Your task to perform on an android device: open app "Firefox Browser" Image 0: 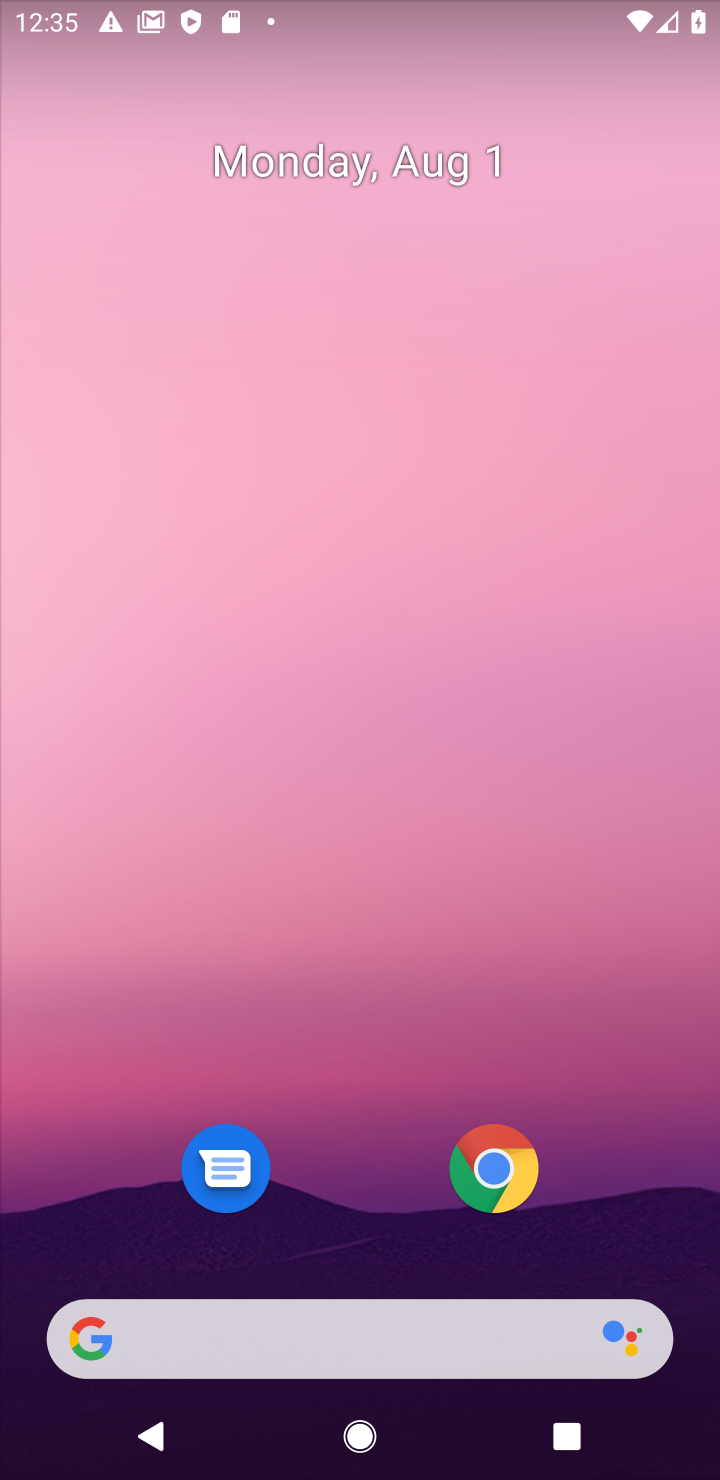
Step 0: drag from (436, 501) to (514, 0)
Your task to perform on an android device: open app "Firefox Browser" Image 1: 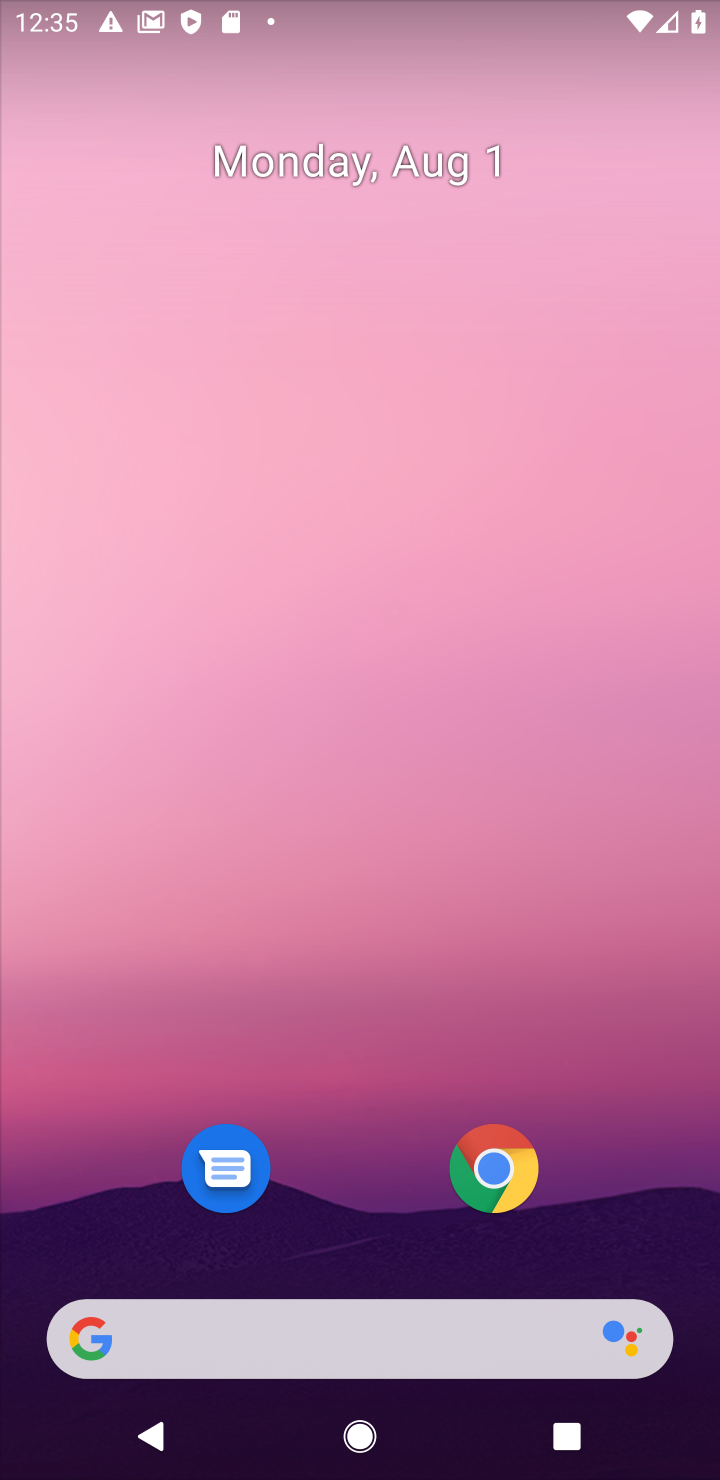
Step 1: drag from (353, 1137) to (507, 20)
Your task to perform on an android device: open app "Firefox Browser" Image 2: 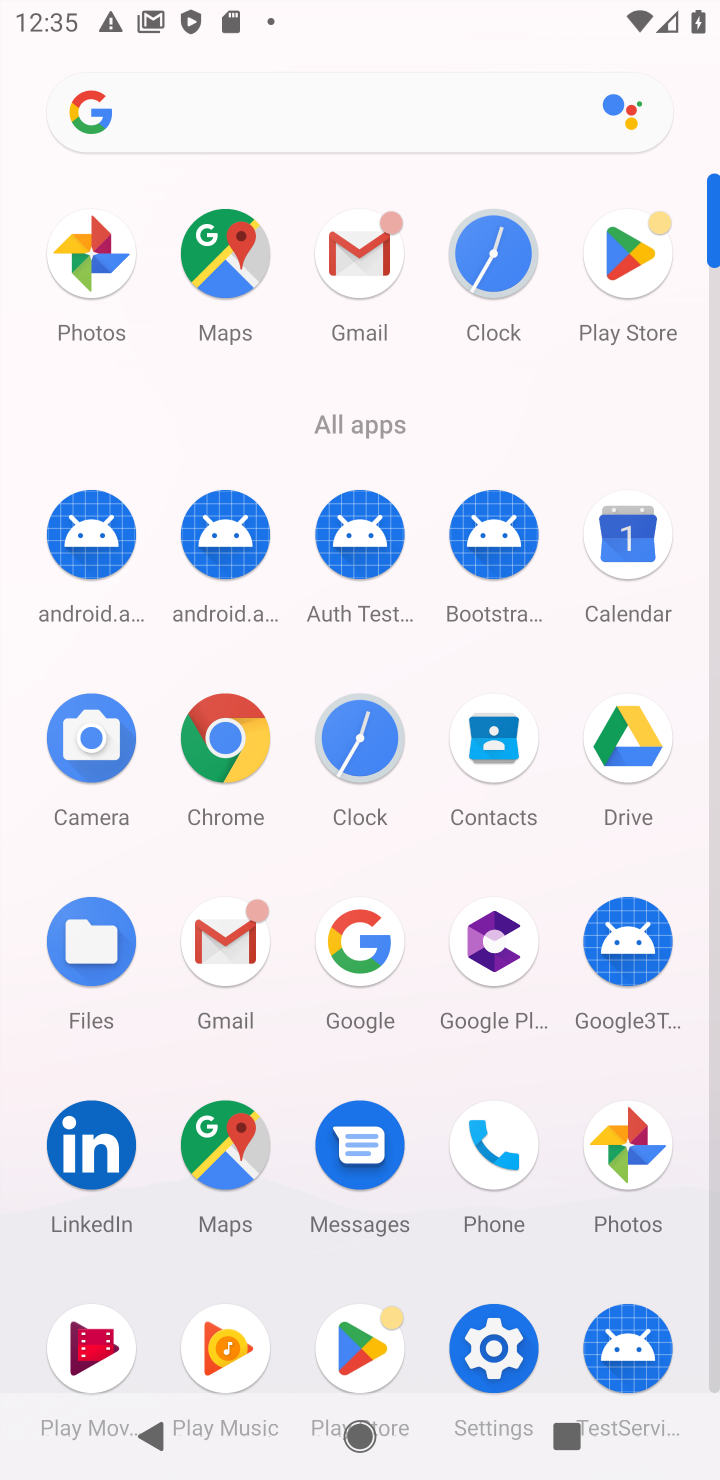
Step 2: click (648, 242)
Your task to perform on an android device: open app "Firefox Browser" Image 3: 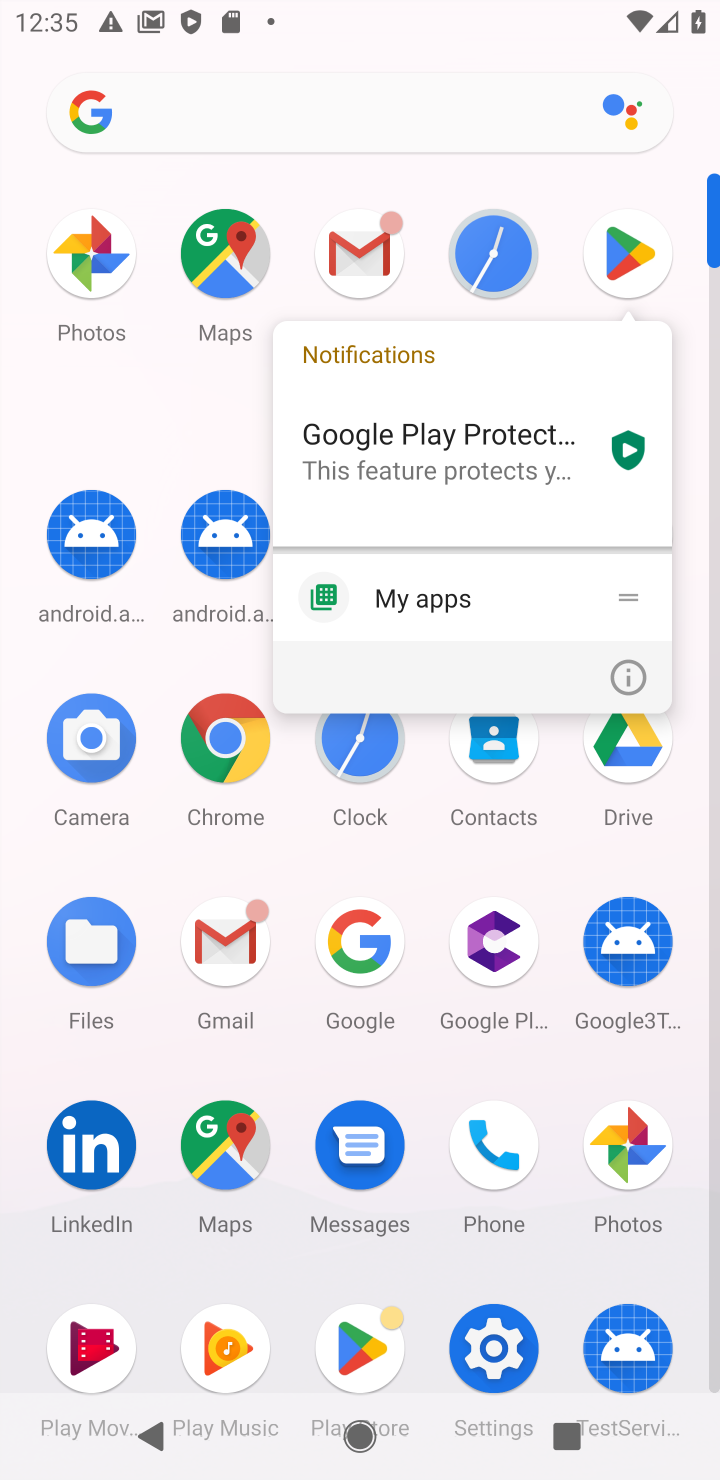
Step 3: click (624, 257)
Your task to perform on an android device: open app "Firefox Browser" Image 4: 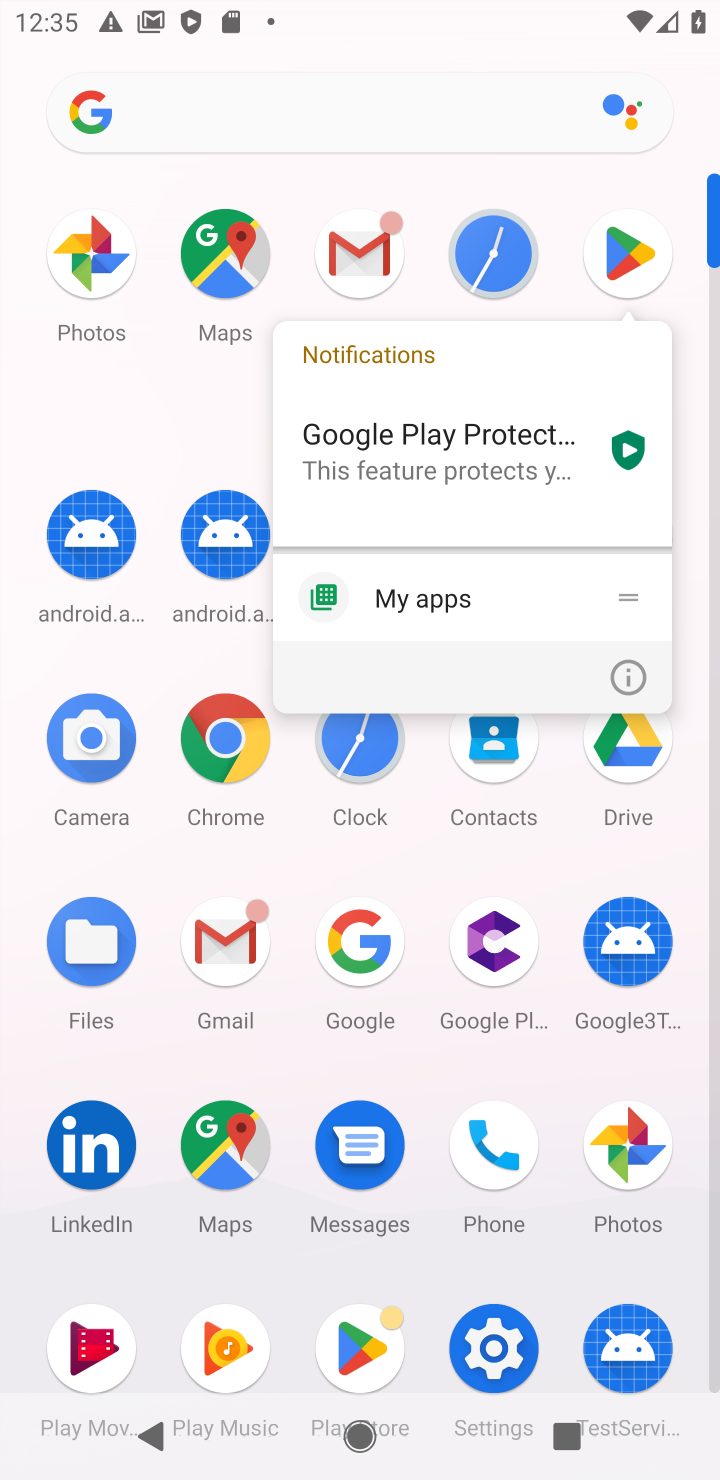
Step 4: click (624, 256)
Your task to perform on an android device: open app "Firefox Browser" Image 5: 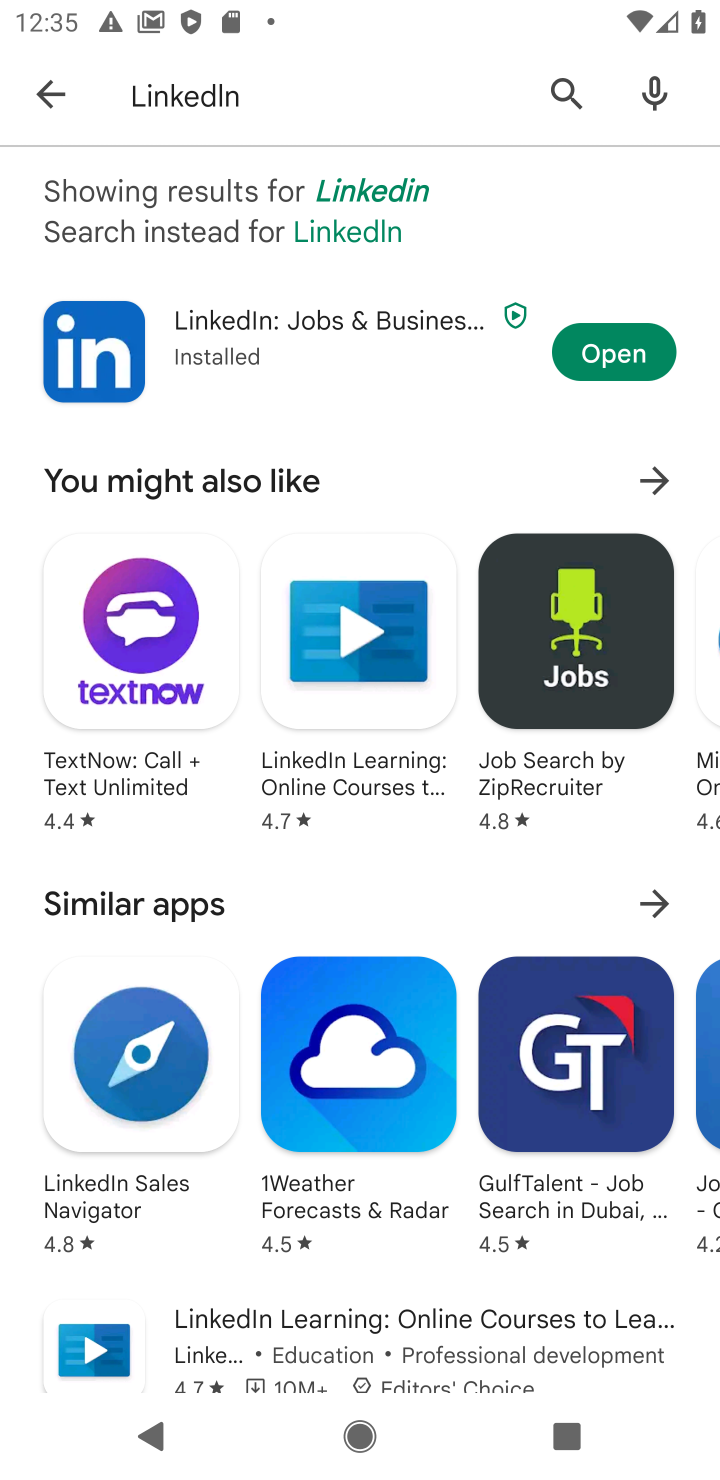
Step 5: click (290, 76)
Your task to perform on an android device: open app "Firefox Browser" Image 6: 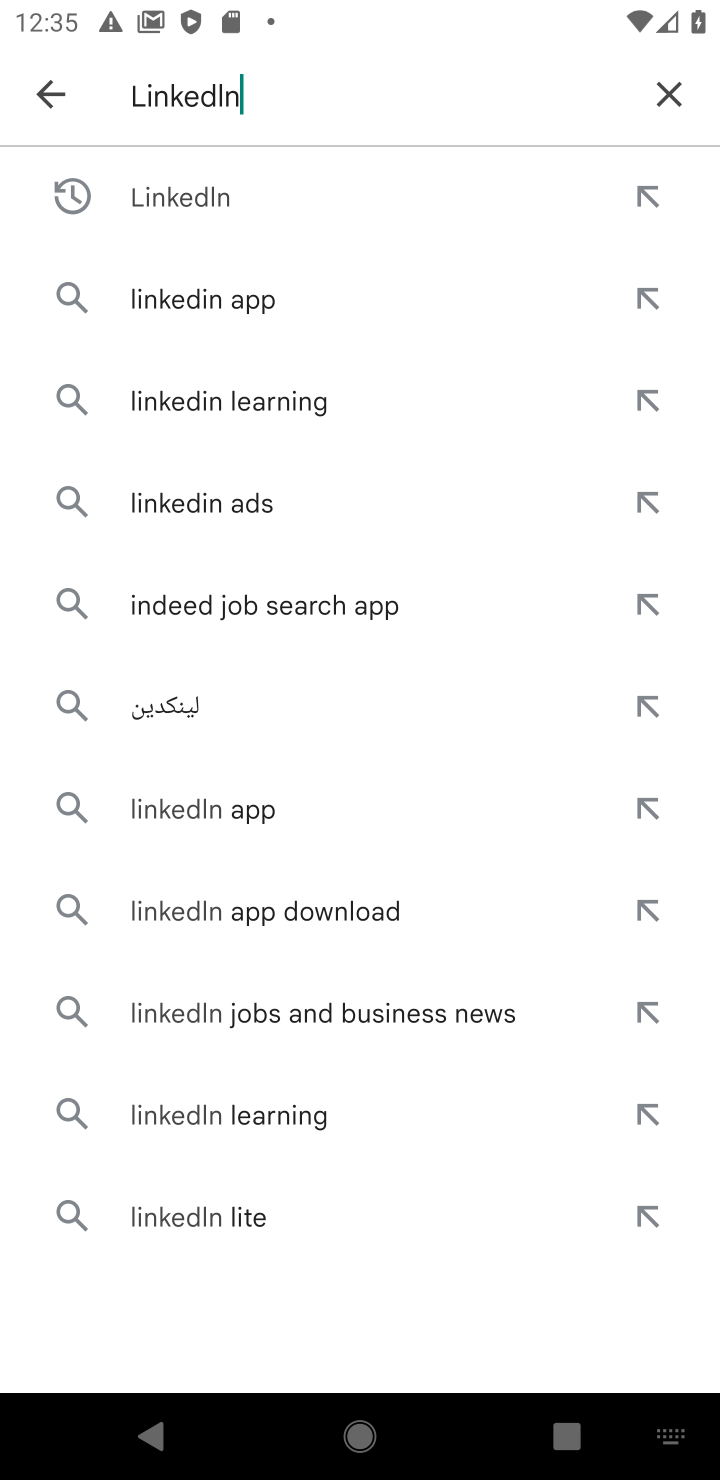
Step 6: click (667, 78)
Your task to perform on an android device: open app "Firefox Browser" Image 7: 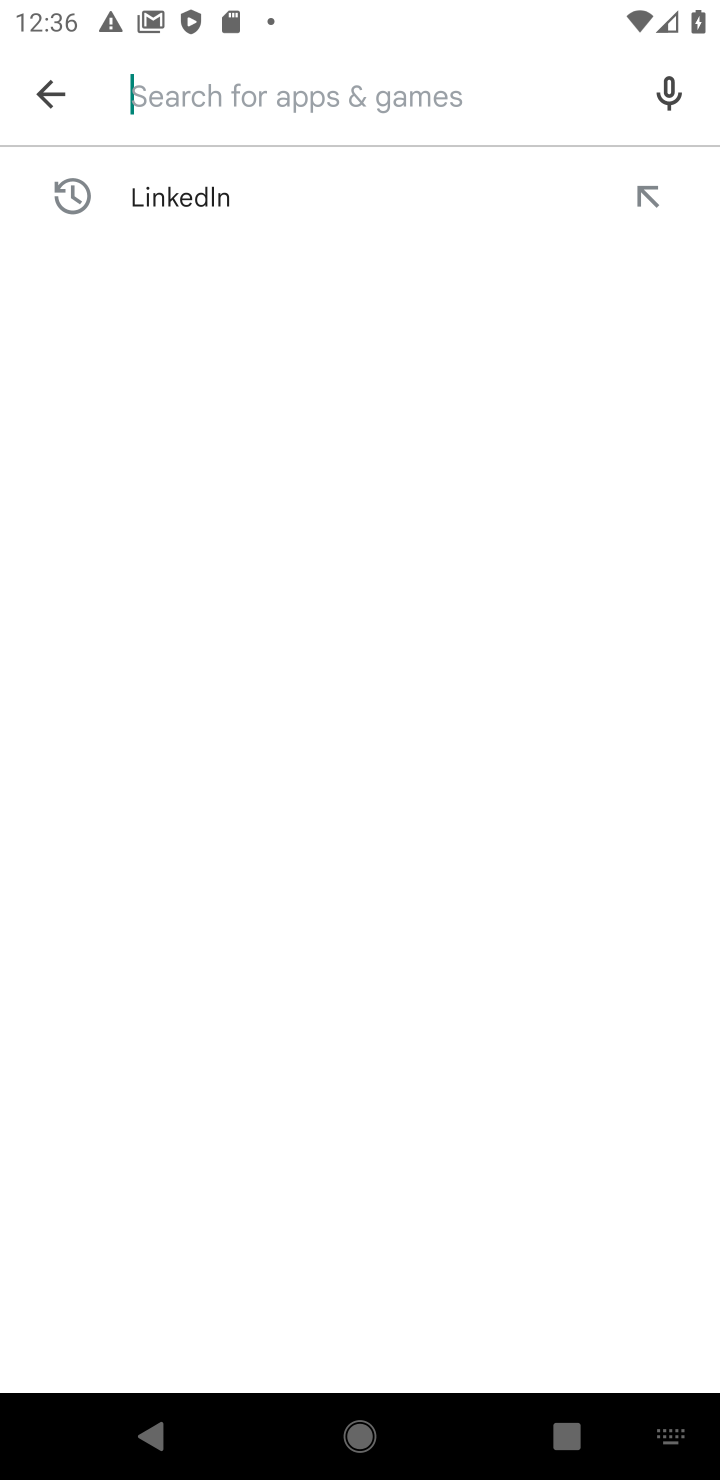
Step 7: type "Firefox Browser"
Your task to perform on an android device: open app "Firefox Browser" Image 8: 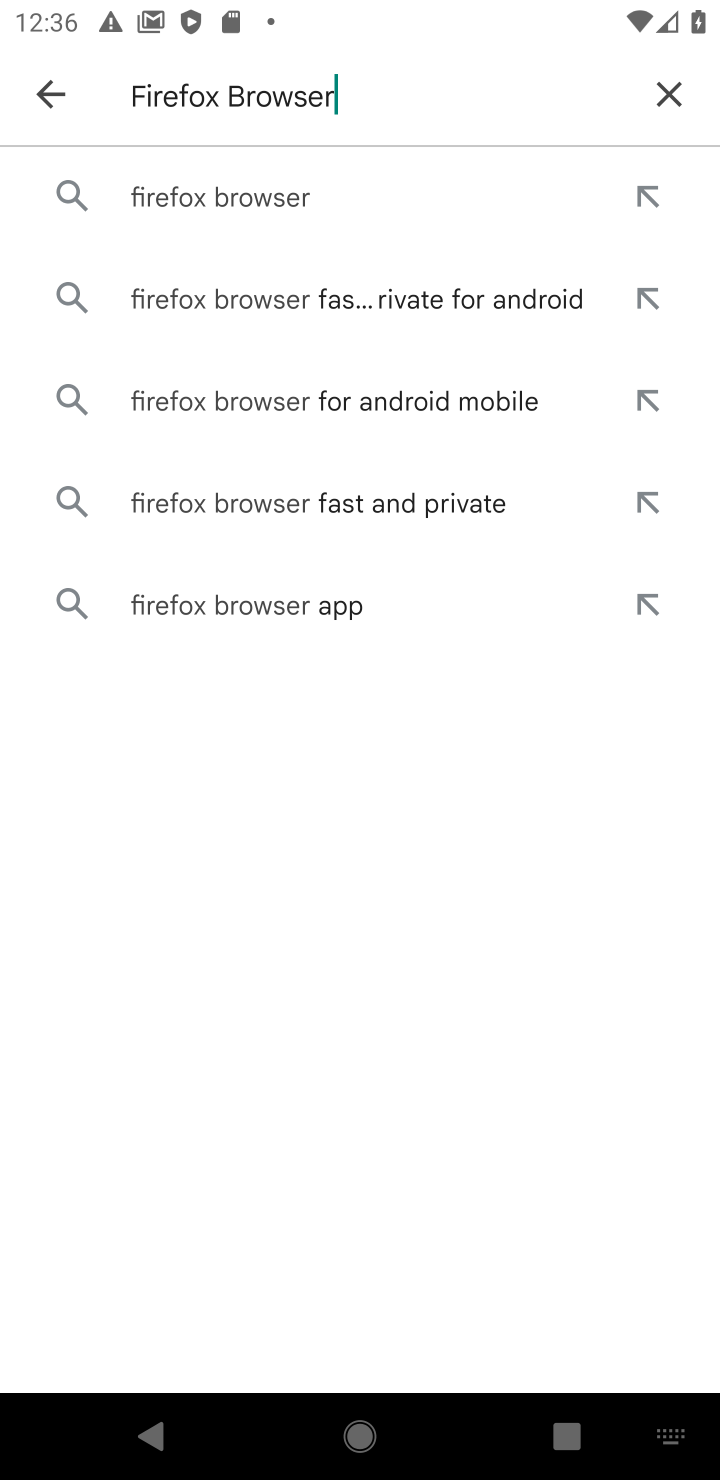
Step 8: press enter
Your task to perform on an android device: open app "Firefox Browser" Image 9: 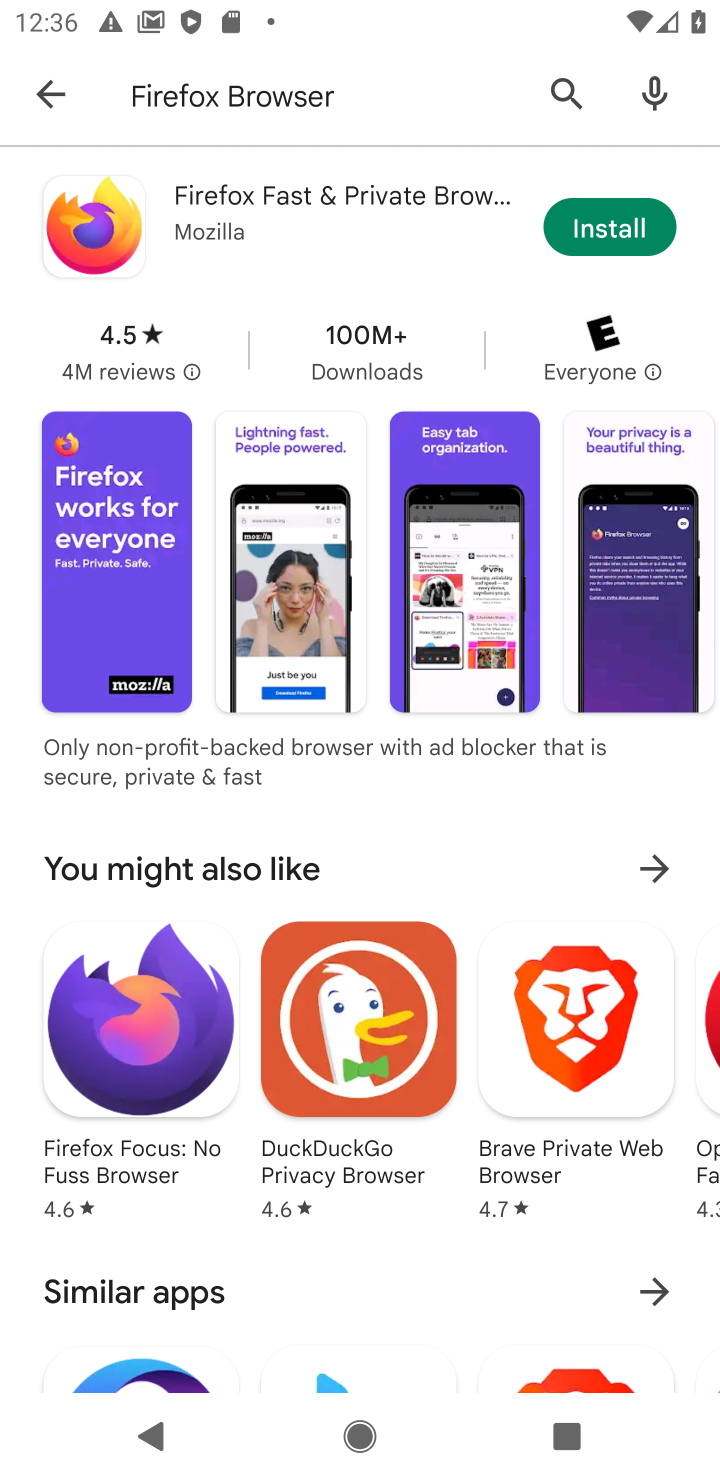
Step 9: task complete